Your task to perform on an android device: delete a single message in the gmail app Image 0: 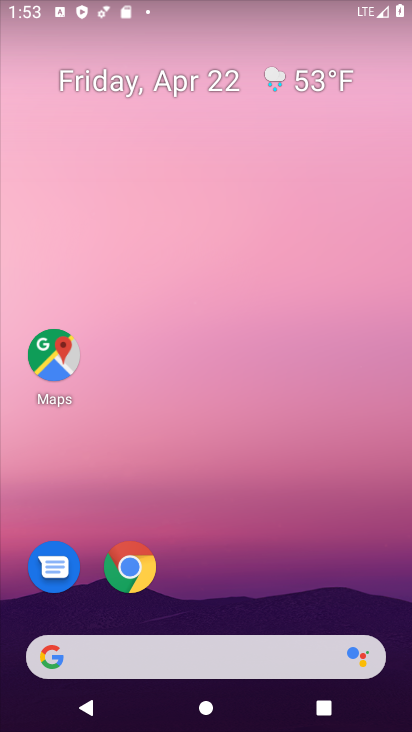
Step 0: drag from (401, 640) to (306, 160)
Your task to perform on an android device: delete a single message in the gmail app Image 1: 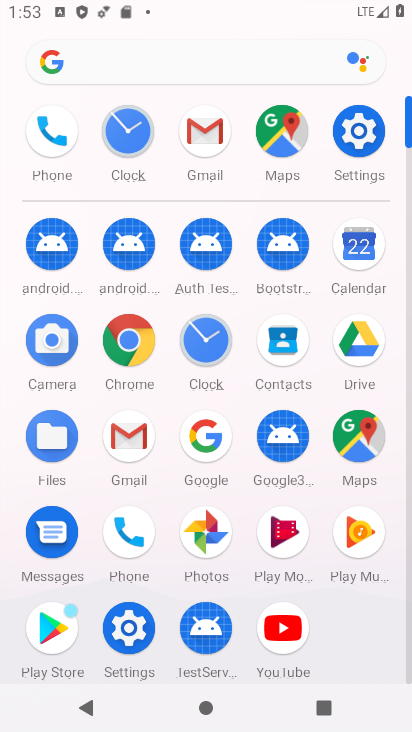
Step 1: click (409, 674)
Your task to perform on an android device: delete a single message in the gmail app Image 2: 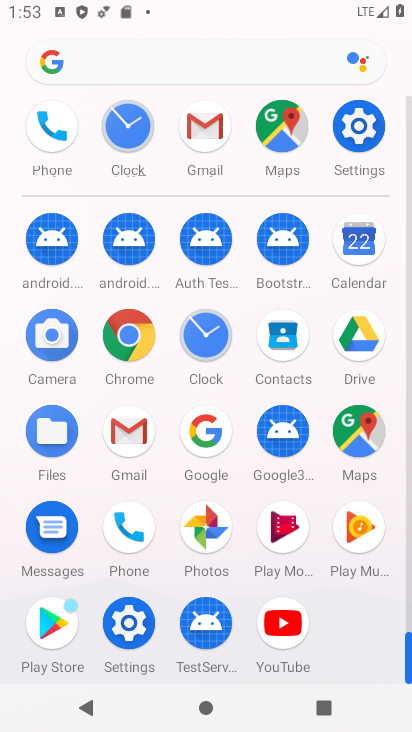
Step 2: click (128, 431)
Your task to perform on an android device: delete a single message in the gmail app Image 3: 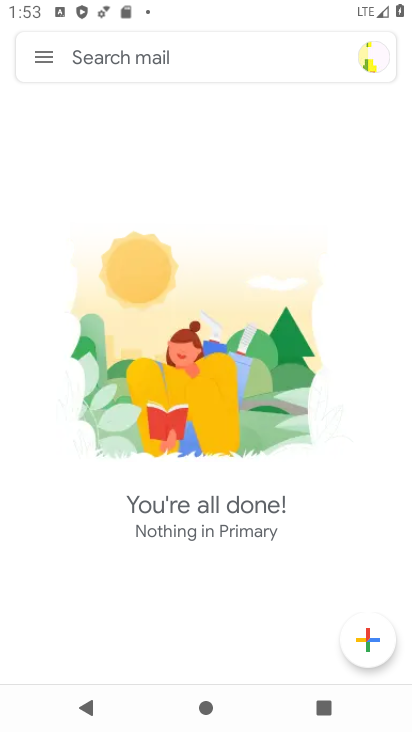
Step 3: click (47, 59)
Your task to perform on an android device: delete a single message in the gmail app Image 4: 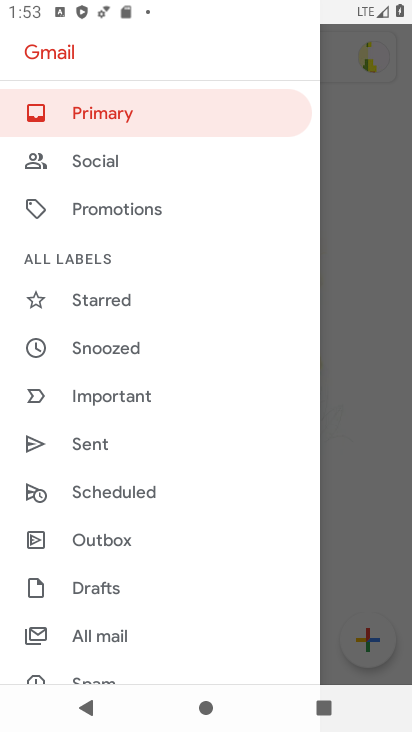
Step 4: click (102, 625)
Your task to perform on an android device: delete a single message in the gmail app Image 5: 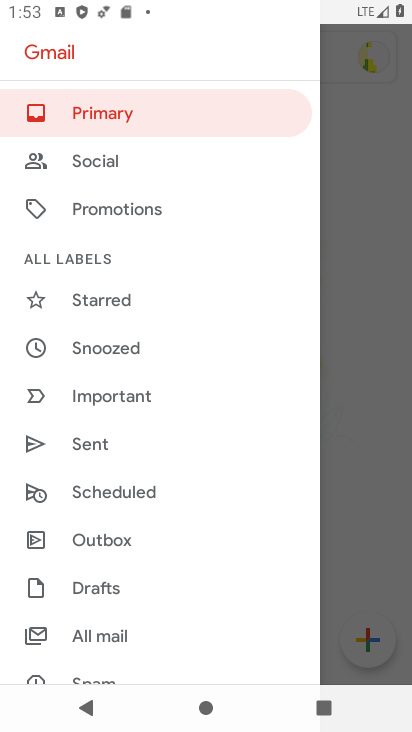
Step 5: click (102, 625)
Your task to perform on an android device: delete a single message in the gmail app Image 6: 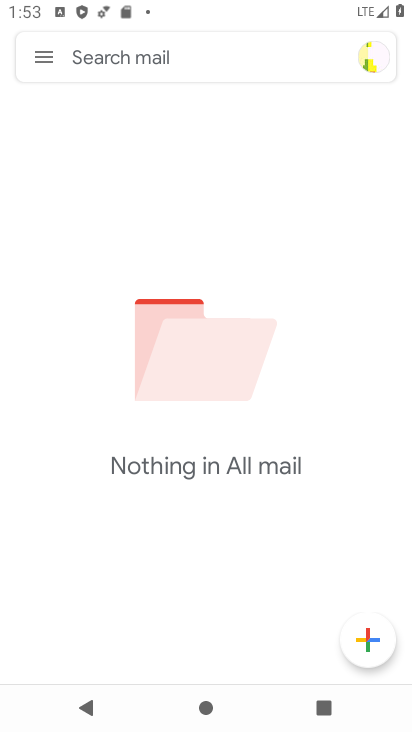
Step 6: task complete